Your task to perform on an android device: Open calendar and show me the fourth week of next month Image 0: 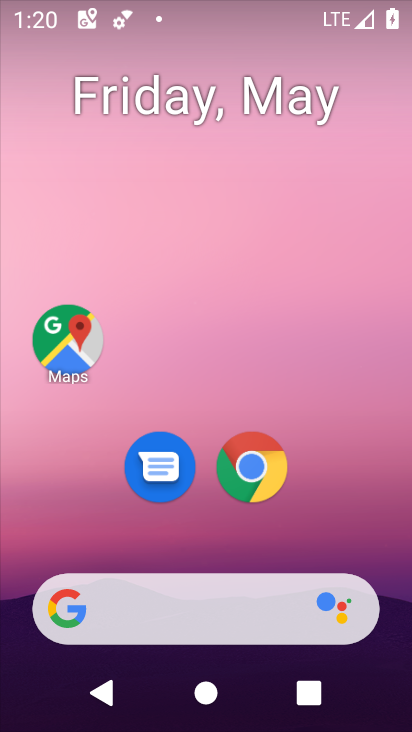
Step 0: drag from (379, 52) to (401, 18)
Your task to perform on an android device: Open calendar and show me the fourth week of next month Image 1: 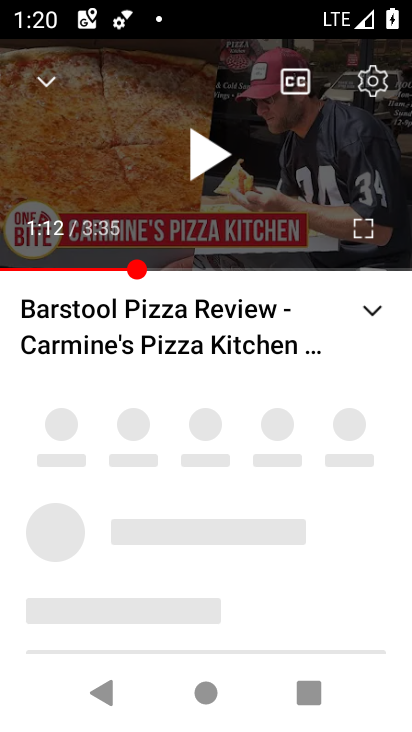
Step 1: press home button
Your task to perform on an android device: Open calendar and show me the fourth week of next month Image 2: 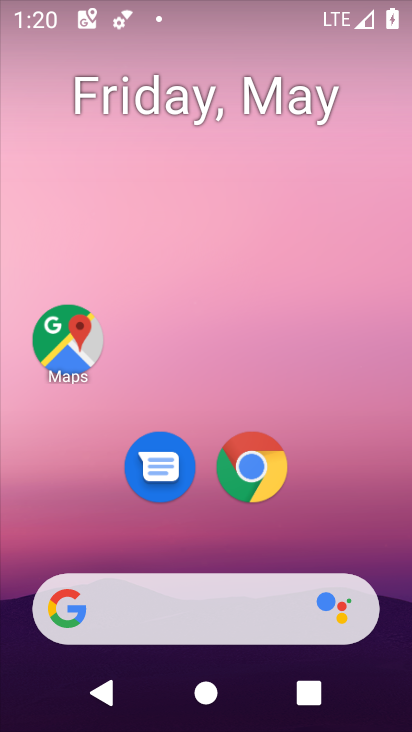
Step 2: drag from (379, 455) to (374, 107)
Your task to perform on an android device: Open calendar and show me the fourth week of next month Image 3: 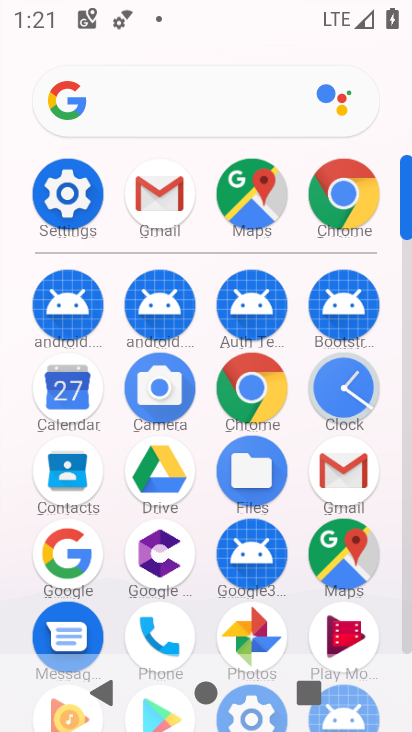
Step 3: click (79, 382)
Your task to perform on an android device: Open calendar and show me the fourth week of next month Image 4: 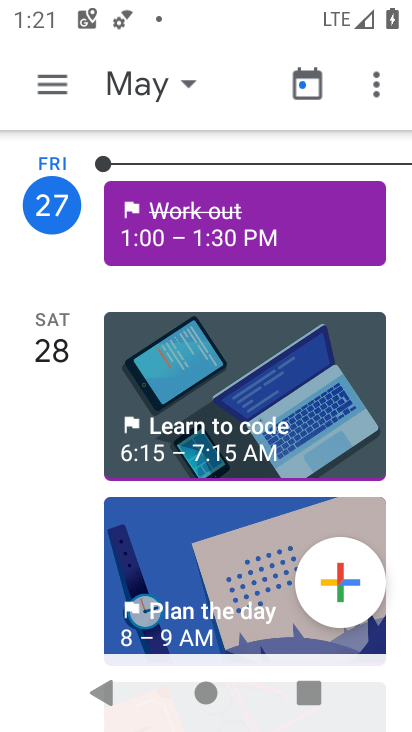
Step 4: click (157, 81)
Your task to perform on an android device: Open calendar and show me the fourth week of next month Image 5: 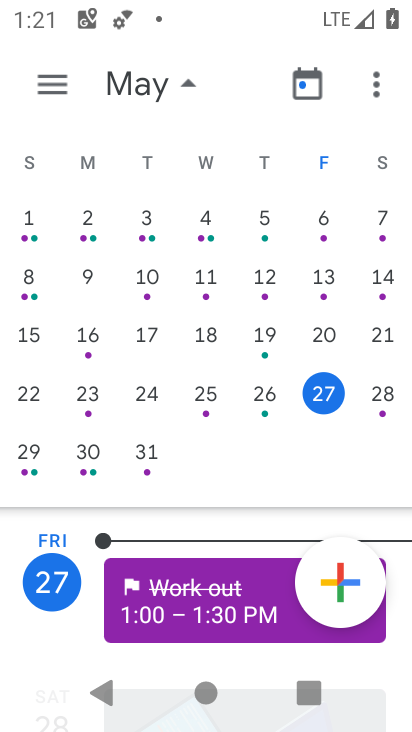
Step 5: drag from (352, 322) to (407, 55)
Your task to perform on an android device: Open calendar and show me the fourth week of next month Image 6: 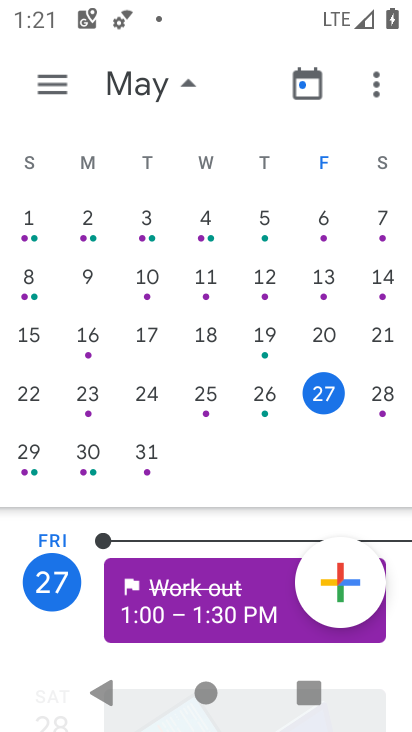
Step 6: click (386, 389)
Your task to perform on an android device: Open calendar and show me the fourth week of next month Image 7: 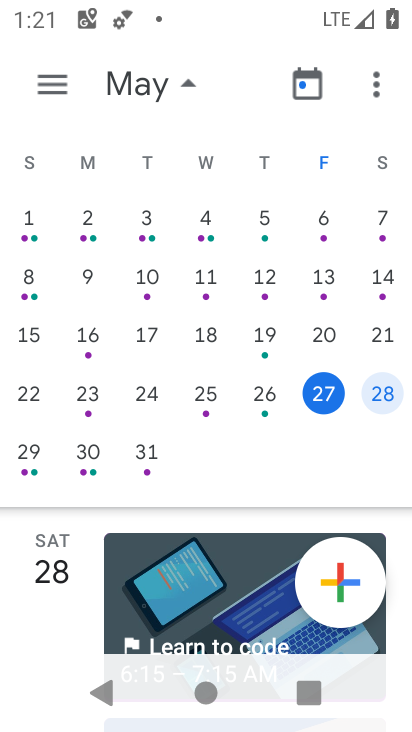
Step 7: task complete